Your task to perform on an android device: make emails show in primary in the gmail app Image 0: 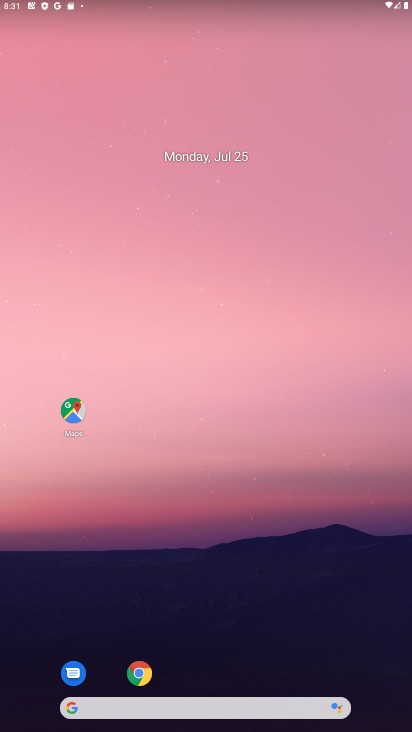
Step 0: drag from (232, 675) to (234, 107)
Your task to perform on an android device: make emails show in primary in the gmail app Image 1: 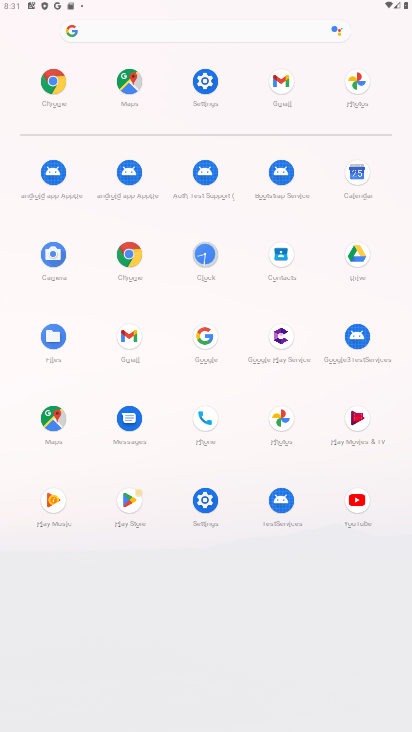
Step 1: click (285, 77)
Your task to perform on an android device: make emails show in primary in the gmail app Image 2: 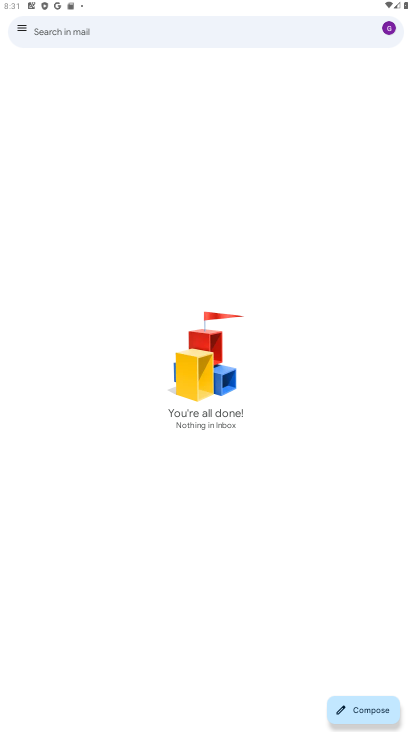
Step 2: task complete